Your task to perform on an android device: see tabs open on other devices in the chrome app Image 0: 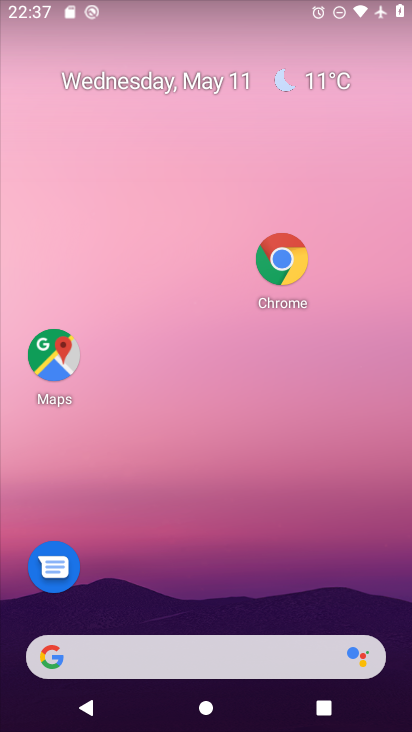
Step 0: drag from (165, 640) to (314, 222)
Your task to perform on an android device: see tabs open on other devices in the chrome app Image 1: 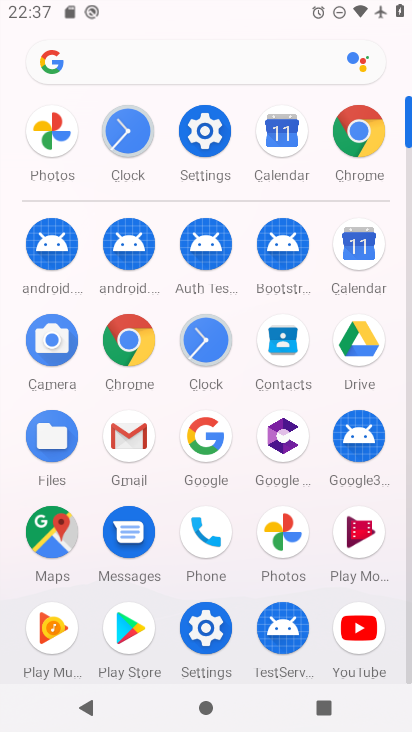
Step 1: click (357, 141)
Your task to perform on an android device: see tabs open on other devices in the chrome app Image 2: 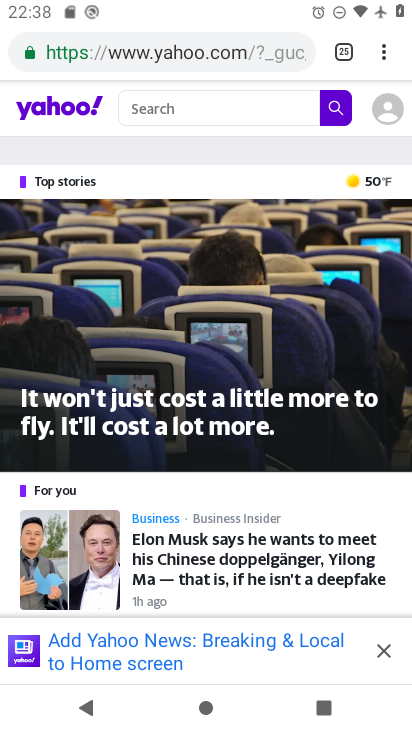
Step 2: task complete